Your task to perform on an android device: make emails show in primary in the gmail app Image 0: 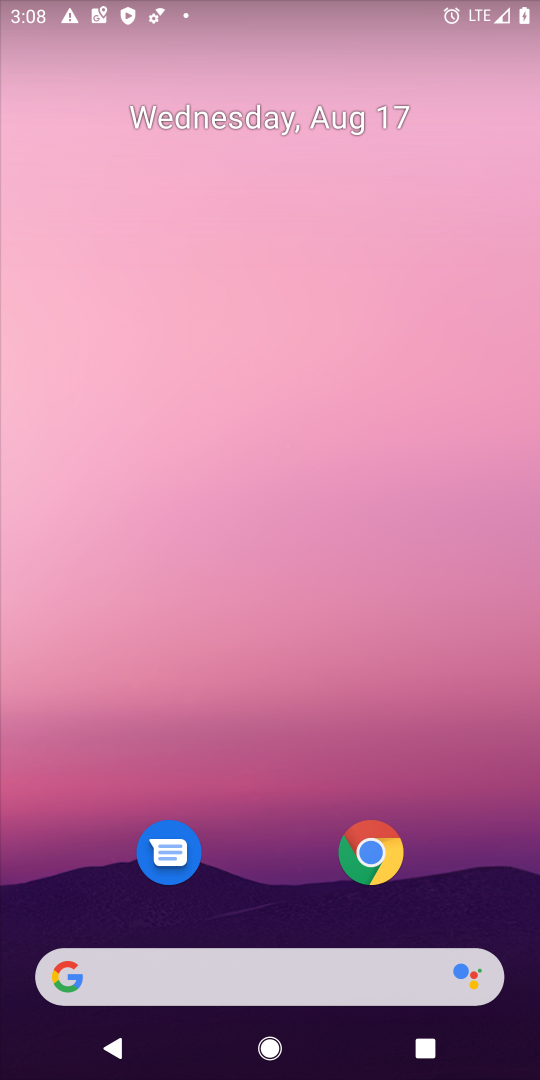
Step 0: drag from (268, 705) to (237, 122)
Your task to perform on an android device: make emails show in primary in the gmail app Image 1: 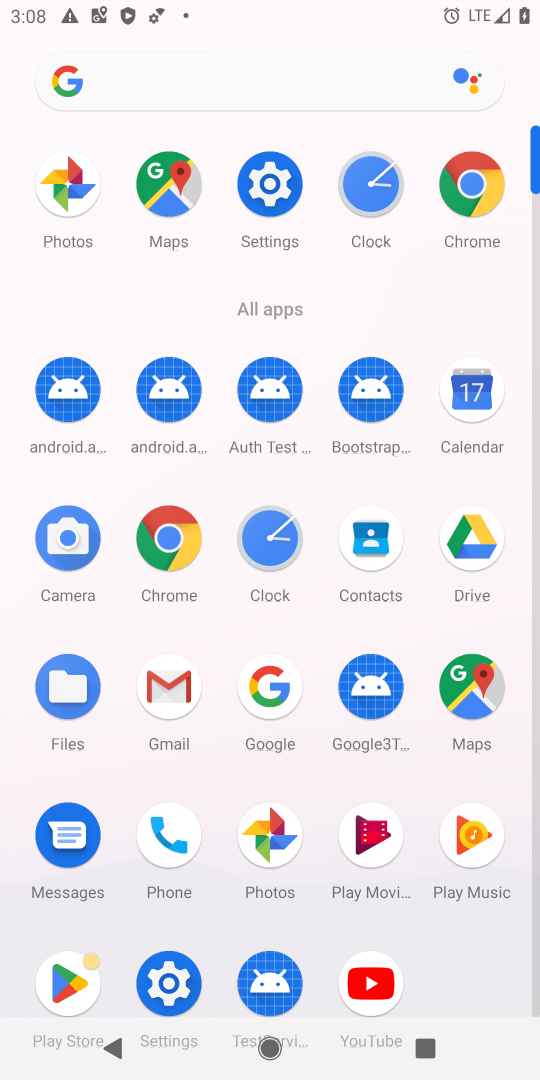
Step 1: click (170, 693)
Your task to perform on an android device: make emails show in primary in the gmail app Image 2: 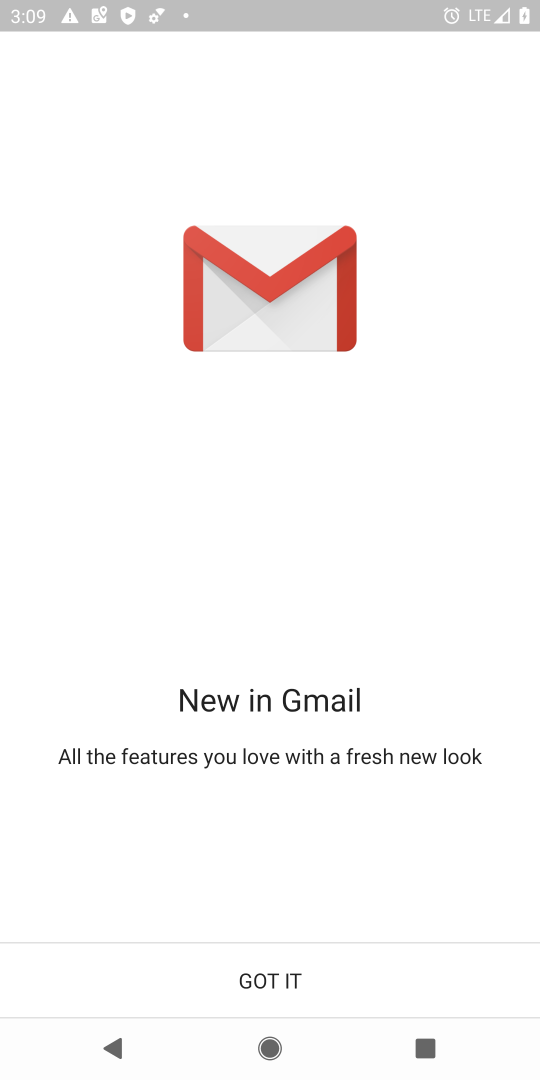
Step 2: click (342, 967)
Your task to perform on an android device: make emails show in primary in the gmail app Image 3: 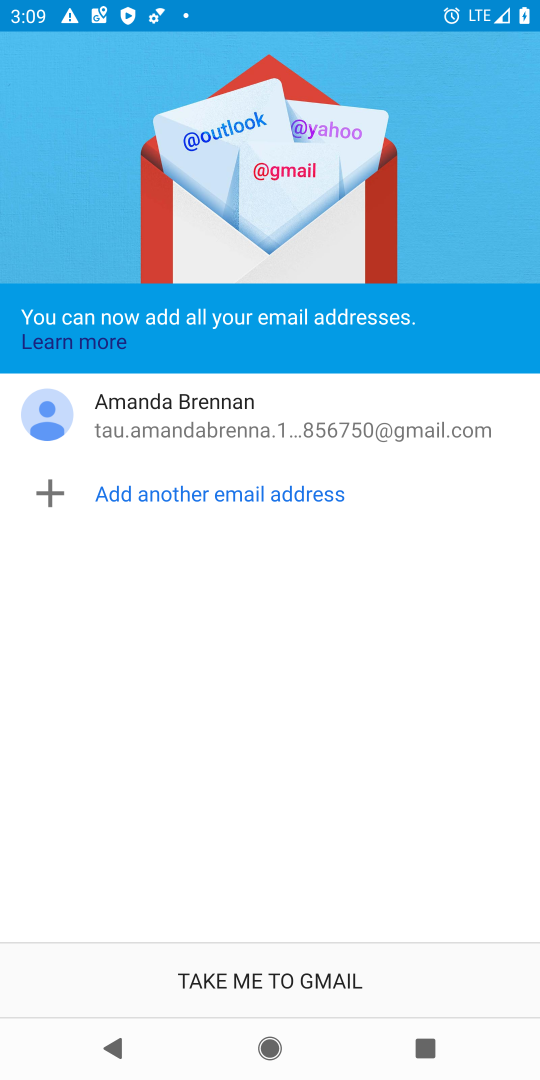
Step 3: click (342, 959)
Your task to perform on an android device: make emails show in primary in the gmail app Image 4: 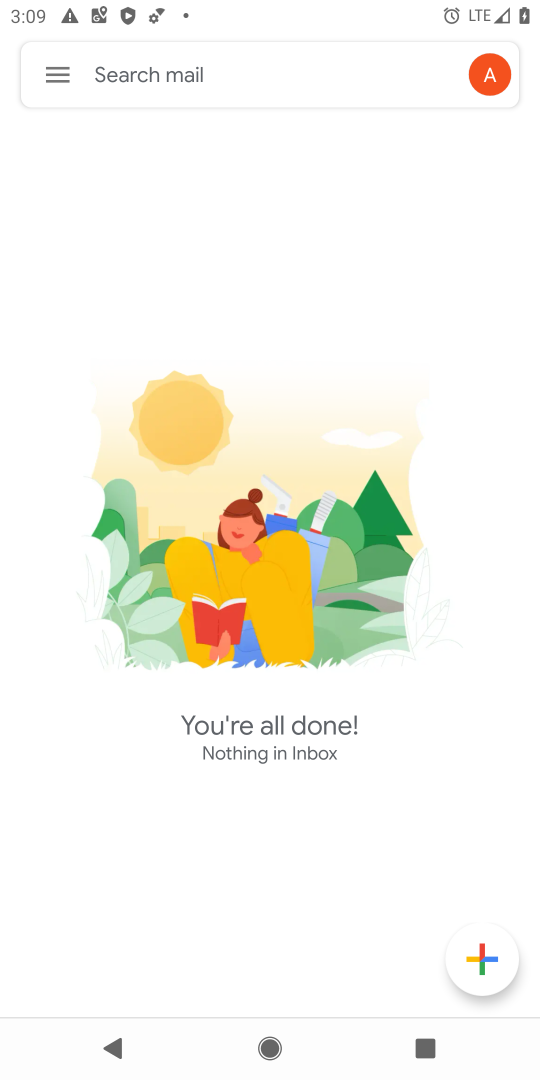
Step 4: click (72, 65)
Your task to perform on an android device: make emails show in primary in the gmail app Image 5: 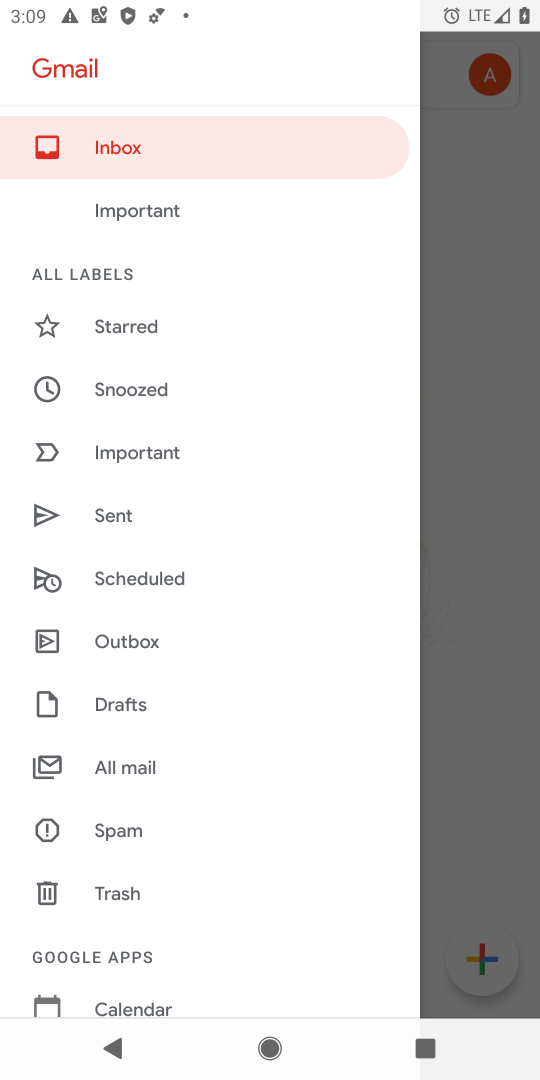
Step 5: drag from (138, 932) to (132, 174)
Your task to perform on an android device: make emails show in primary in the gmail app Image 6: 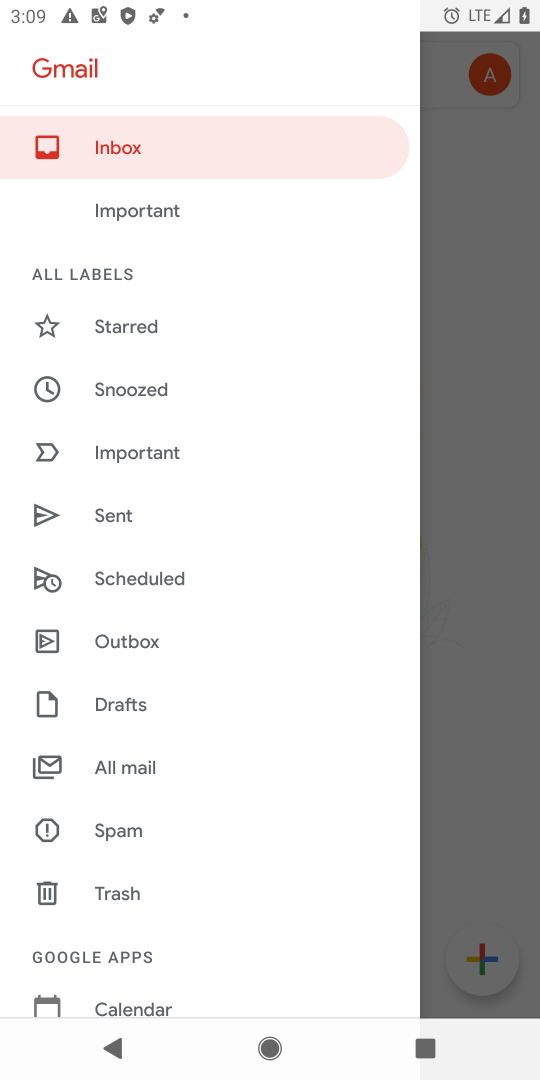
Step 6: drag from (123, 838) to (156, 260)
Your task to perform on an android device: make emails show in primary in the gmail app Image 7: 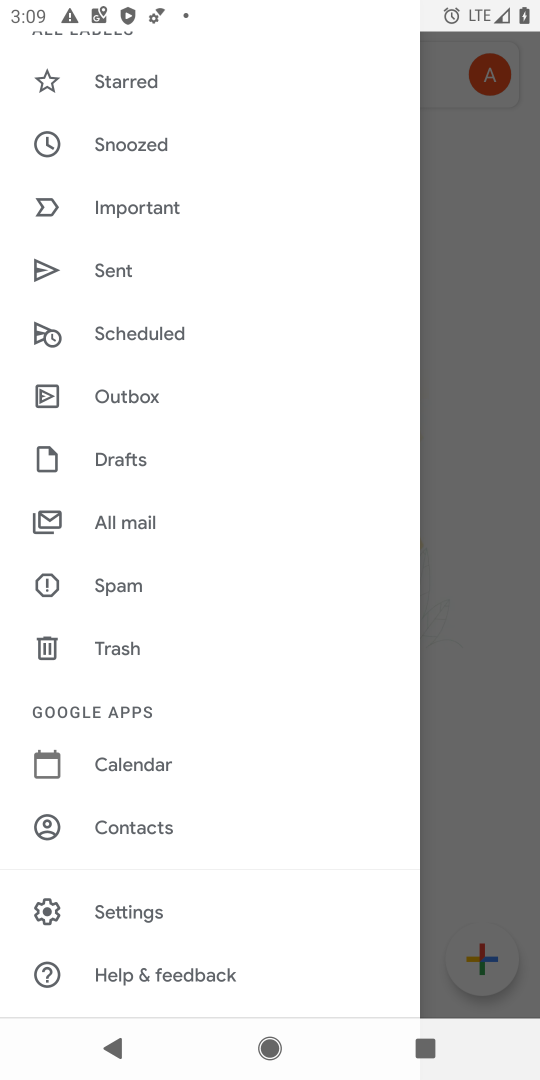
Step 7: click (116, 899)
Your task to perform on an android device: make emails show in primary in the gmail app Image 8: 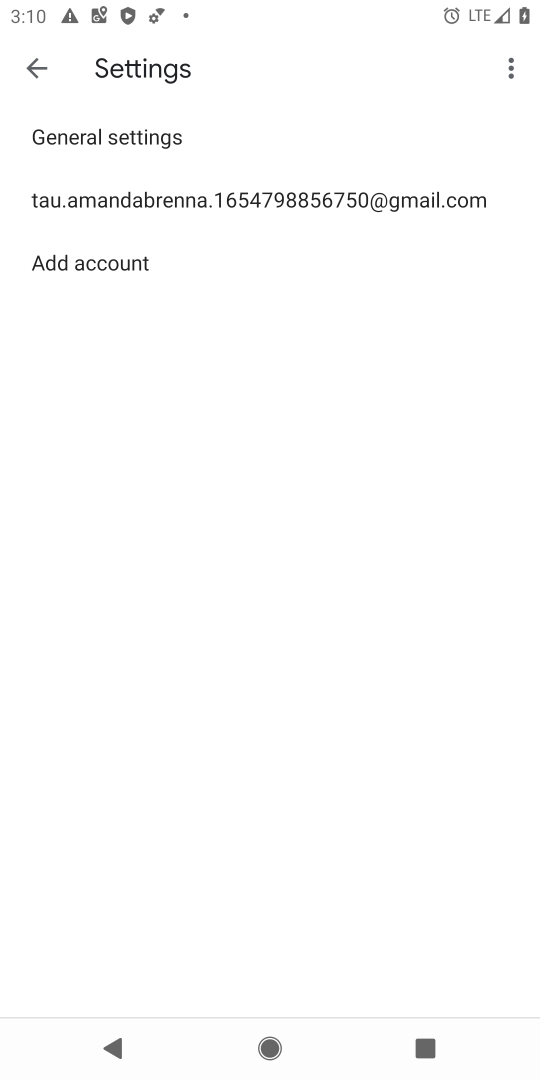
Step 8: click (130, 202)
Your task to perform on an android device: make emails show in primary in the gmail app Image 9: 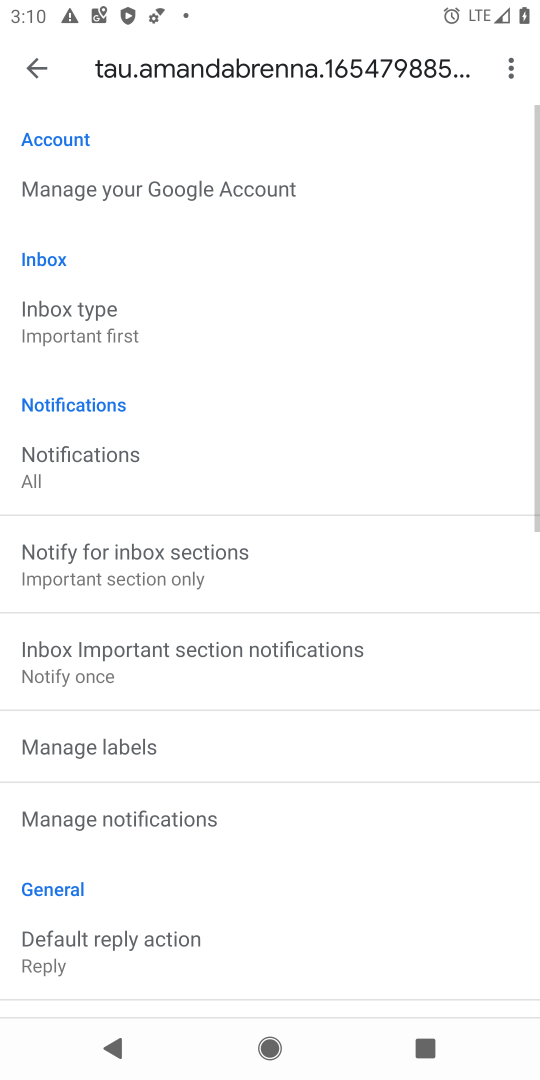
Step 9: drag from (244, 309) to (183, 1056)
Your task to perform on an android device: make emails show in primary in the gmail app Image 10: 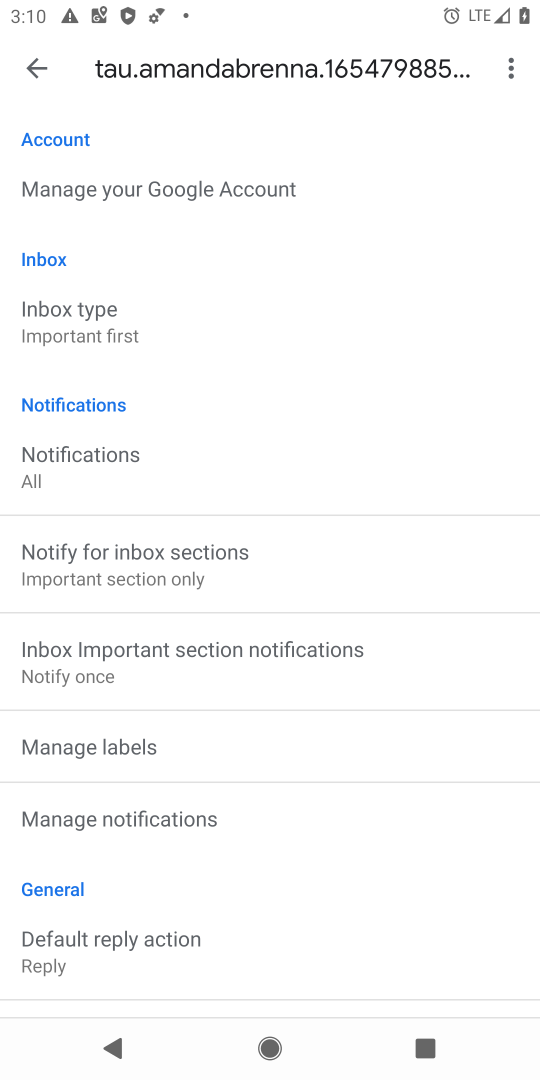
Step 10: click (96, 316)
Your task to perform on an android device: make emails show in primary in the gmail app Image 11: 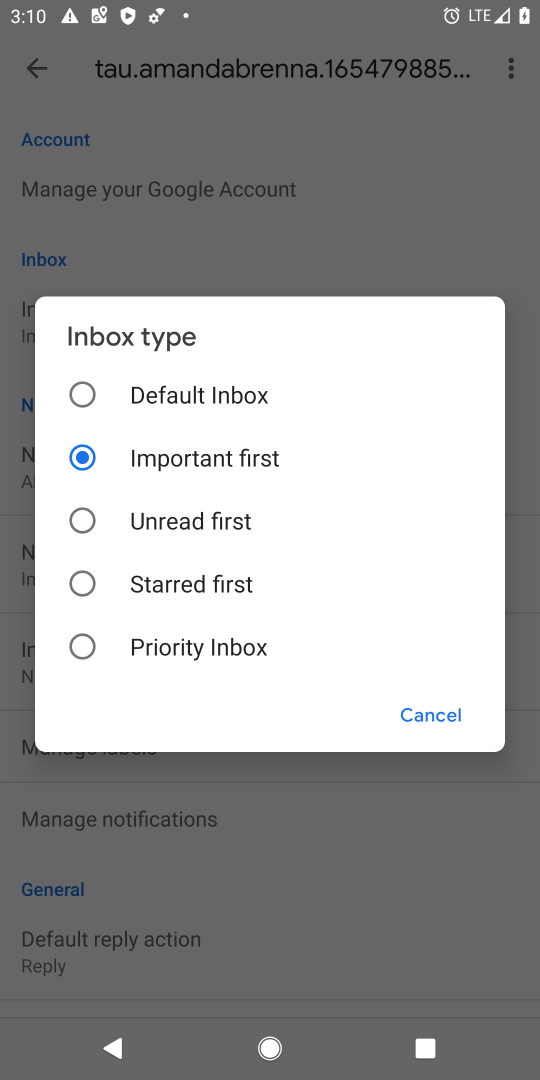
Step 11: click (149, 394)
Your task to perform on an android device: make emails show in primary in the gmail app Image 12: 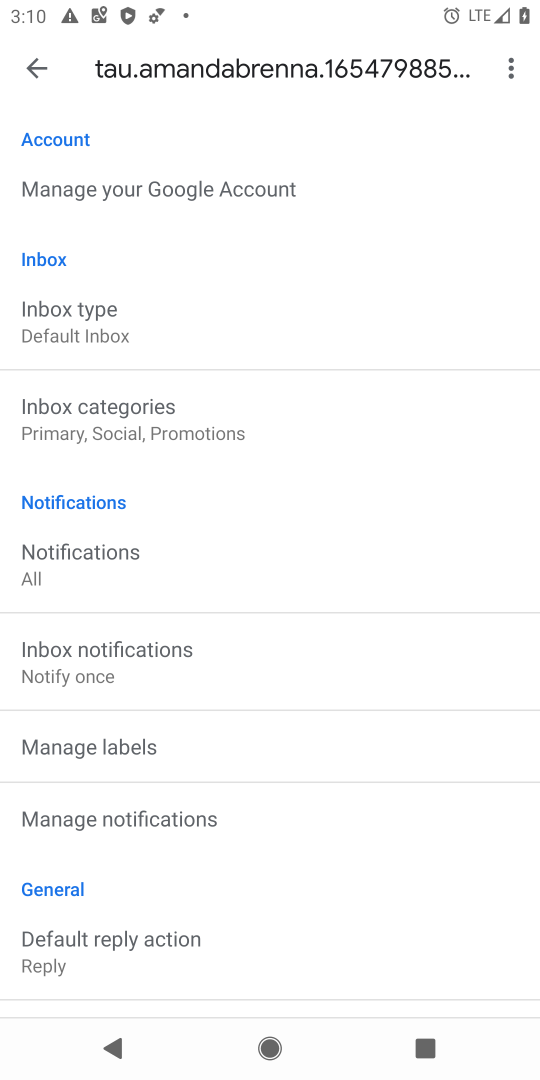
Step 12: click (207, 411)
Your task to perform on an android device: make emails show in primary in the gmail app Image 13: 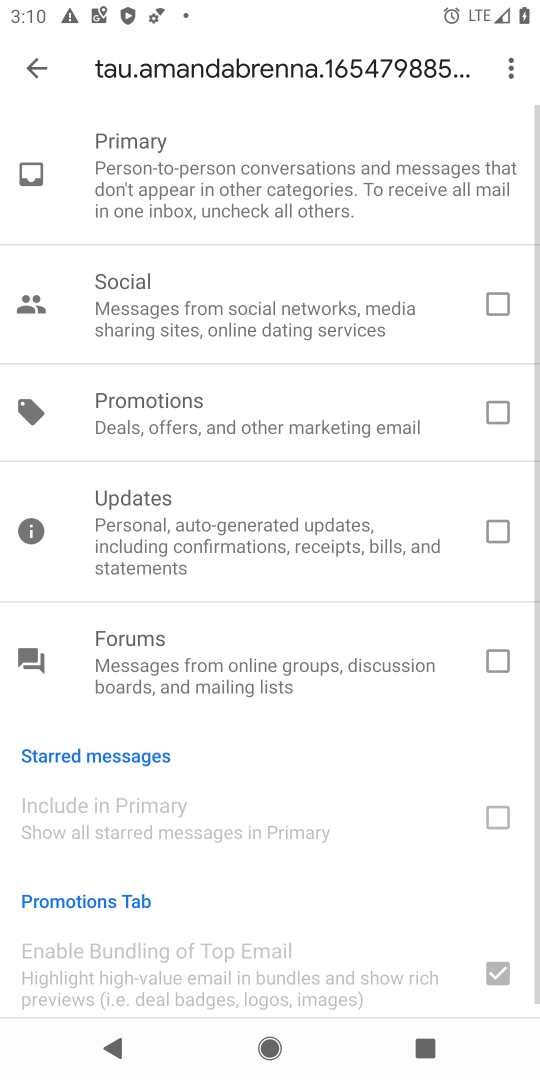
Step 13: task complete